Your task to perform on an android device: check the backup settings in the google photos Image 0: 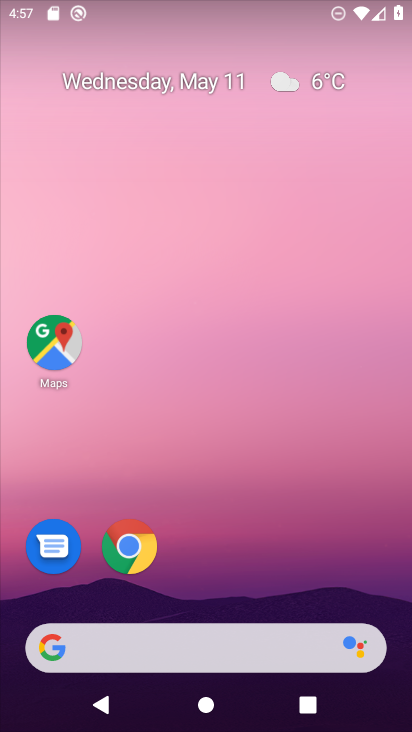
Step 0: drag from (223, 594) to (223, 156)
Your task to perform on an android device: check the backup settings in the google photos Image 1: 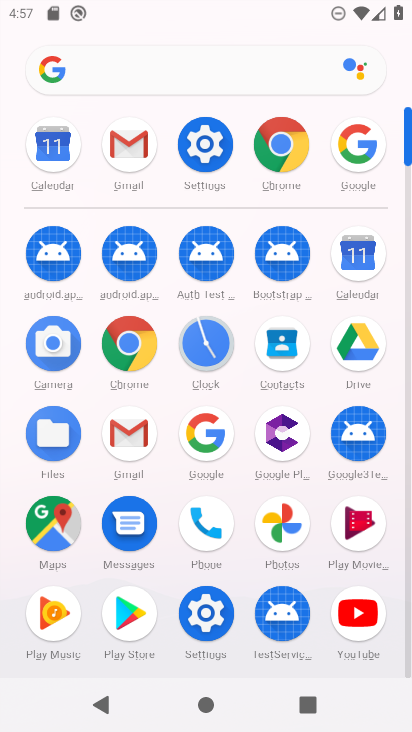
Step 1: click (290, 519)
Your task to perform on an android device: check the backup settings in the google photos Image 2: 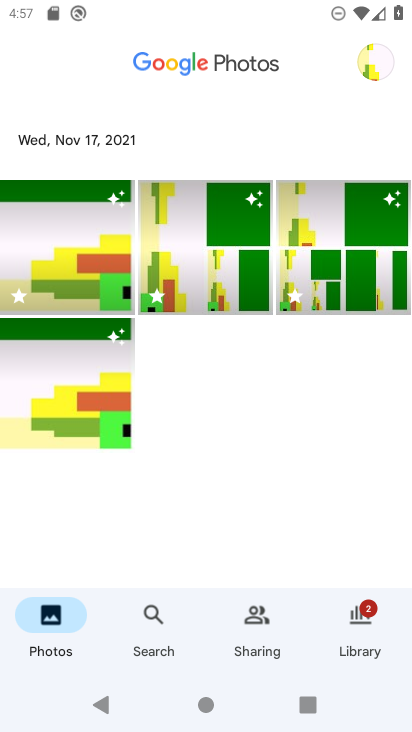
Step 2: click (374, 65)
Your task to perform on an android device: check the backup settings in the google photos Image 3: 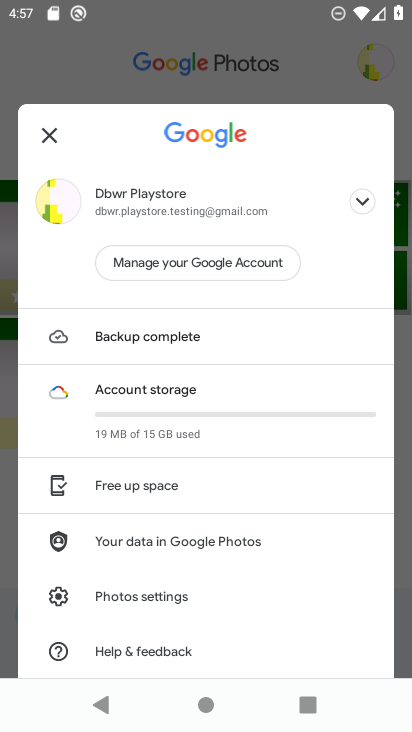
Step 3: click (143, 339)
Your task to perform on an android device: check the backup settings in the google photos Image 4: 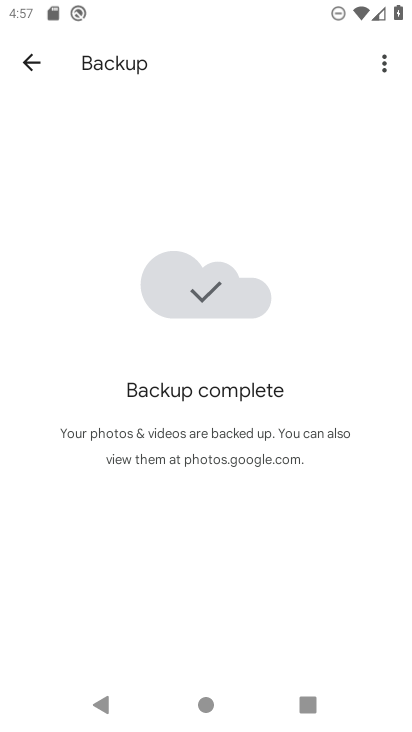
Step 4: click (384, 58)
Your task to perform on an android device: check the backup settings in the google photos Image 5: 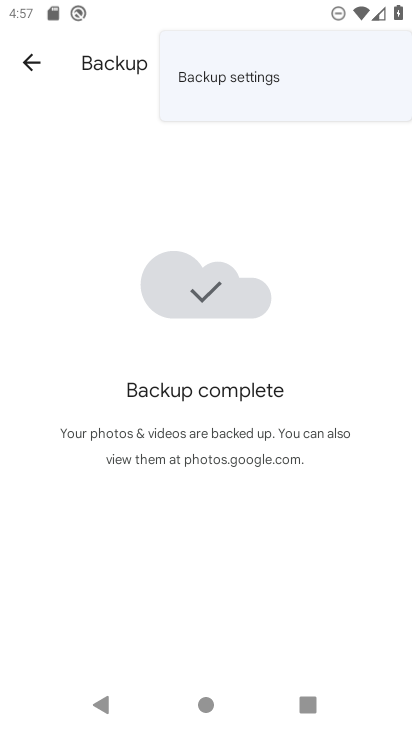
Step 5: click (250, 75)
Your task to perform on an android device: check the backup settings in the google photos Image 6: 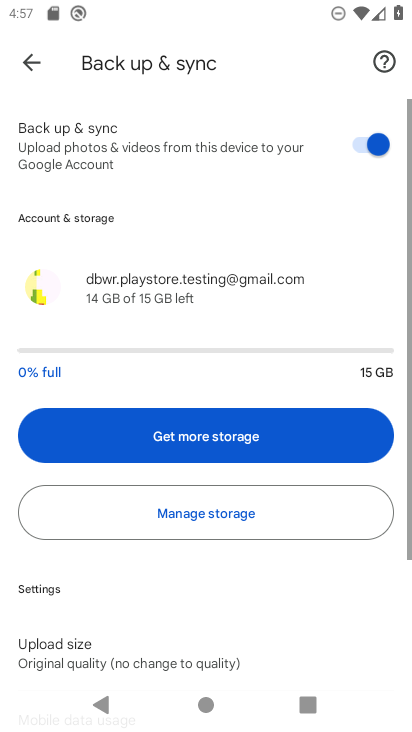
Step 6: task complete